Your task to perform on an android device: What is the news today? Image 0: 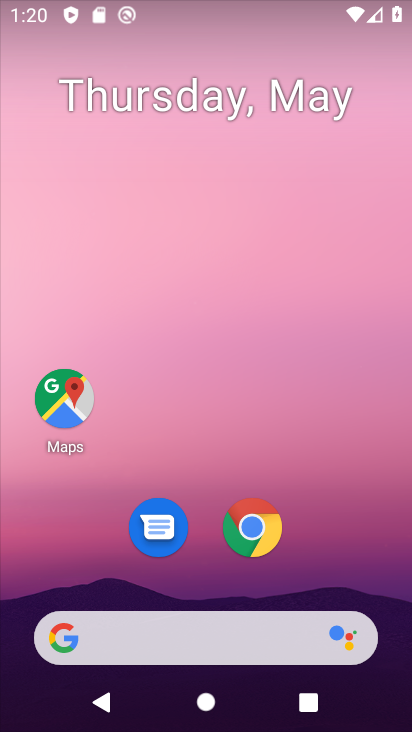
Step 0: click (255, 523)
Your task to perform on an android device: What is the news today? Image 1: 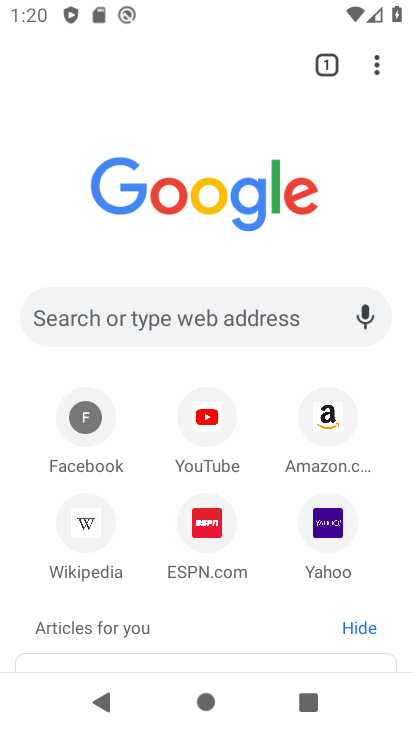
Step 1: click (233, 321)
Your task to perform on an android device: What is the news today? Image 2: 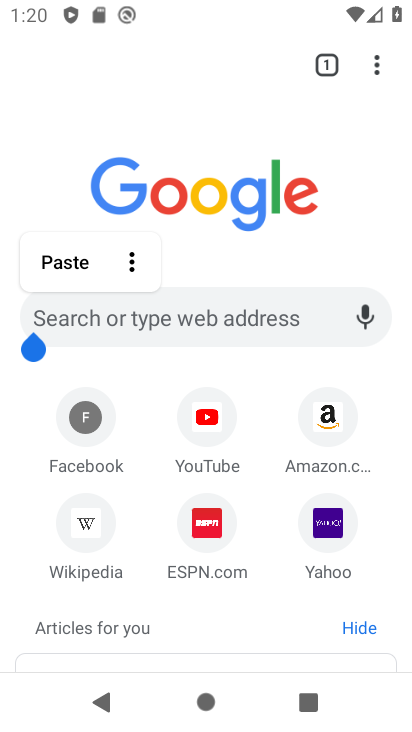
Step 2: click (274, 339)
Your task to perform on an android device: What is the news today? Image 3: 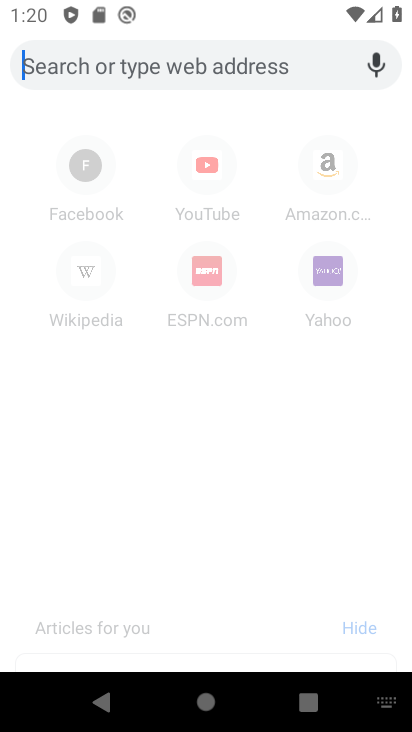
Step 3: type "What is the news today?"
Your task to perform on an android device: What is the news today? Image 4: 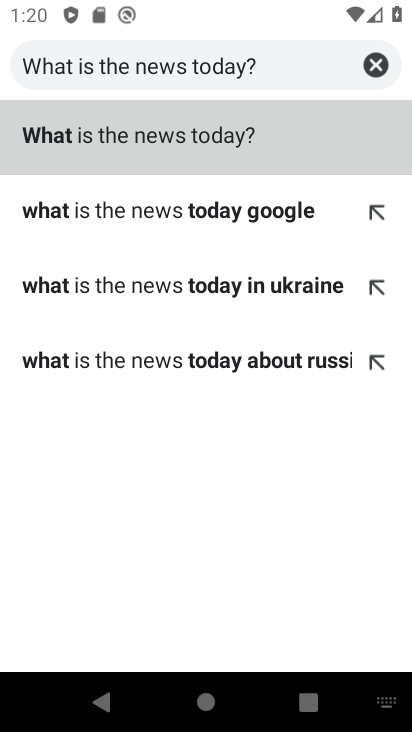
Step 4: click (239, 143)
Your task to perform on an android device: What is the news today? Image 5: 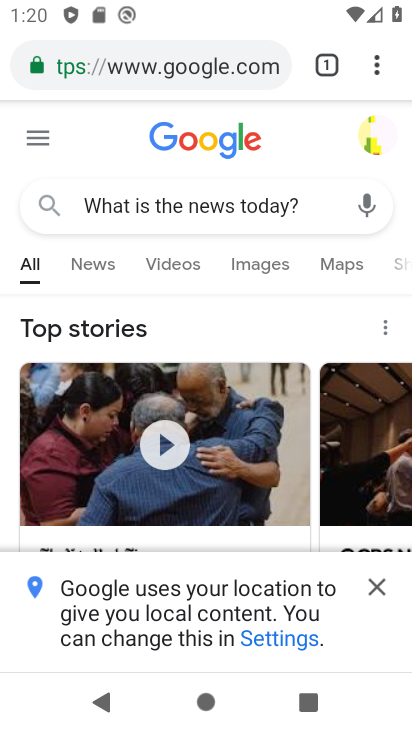
Step 5: task complete